Your task to perform on an android device: turn on bluetooth scan Image 0: 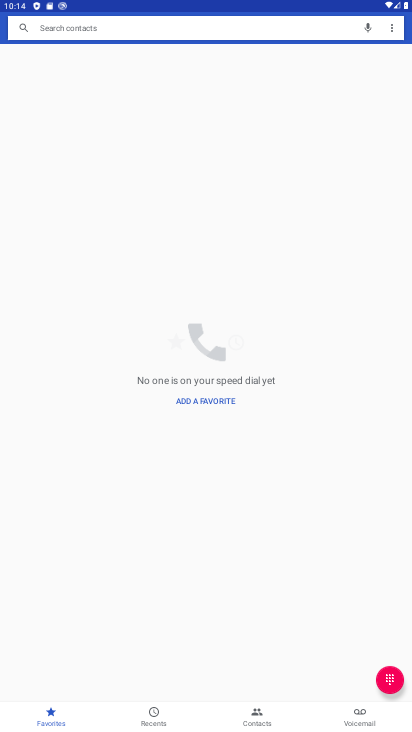
Step 0: click (410, 309)
Your task to perform on an android device: turn on bluetooth scan Image 1: 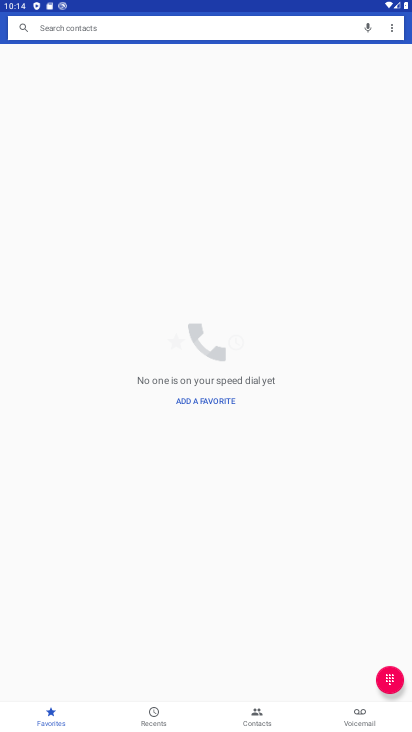
Step 1: press back button
Your task to perform on an android device: turn on bluetooth scan Image 2: 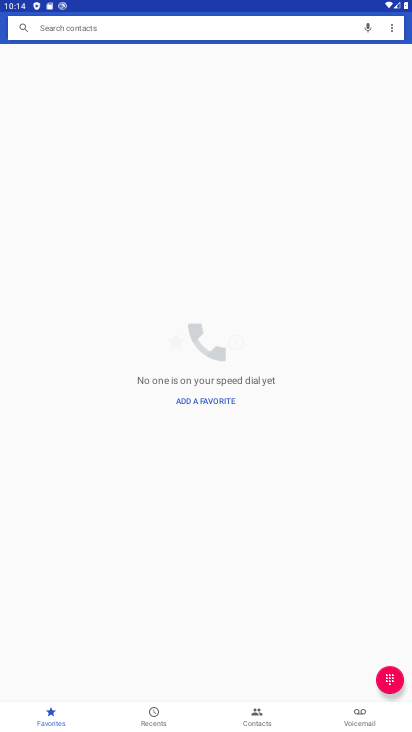
Step 2: press back button
Your task to perform on an android device: turn on bluetooth scan Image 3: 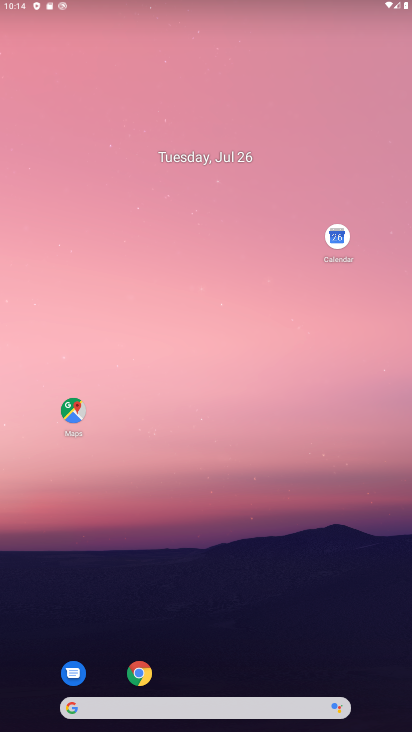
Step 3: press back button
Your task to perform on an android device: turn on bluetooth scan Image 4: 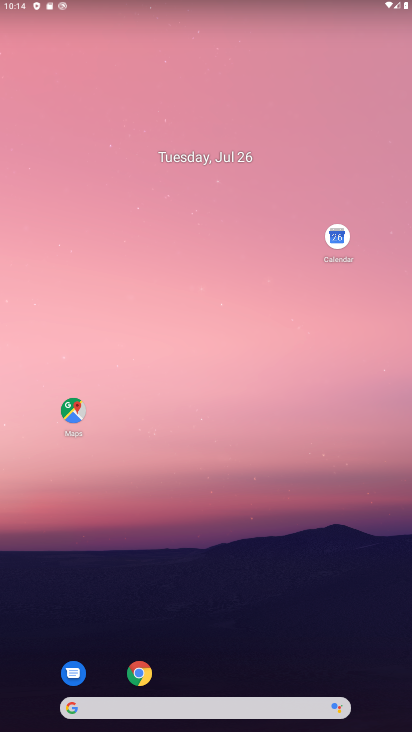
Step 4: drag from (172, 546) to (114, 115)
Your task to perform on an android device: turn on bluetooth scan Image 5: 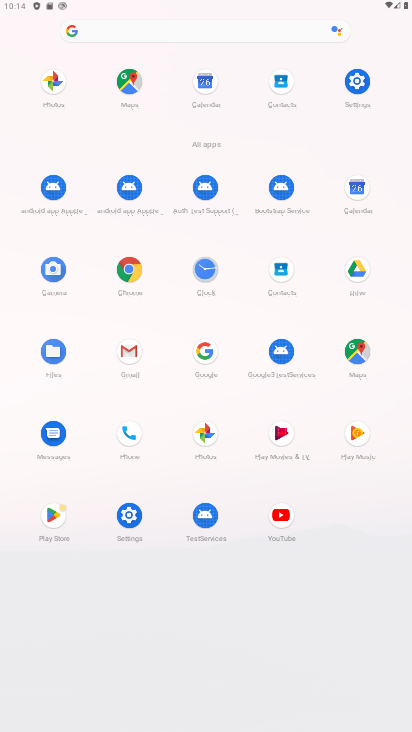
Step 5: drag from (216, 312) to (189, 119)
Your task to perform on an android device: turn on bluetooth scan Image 6: 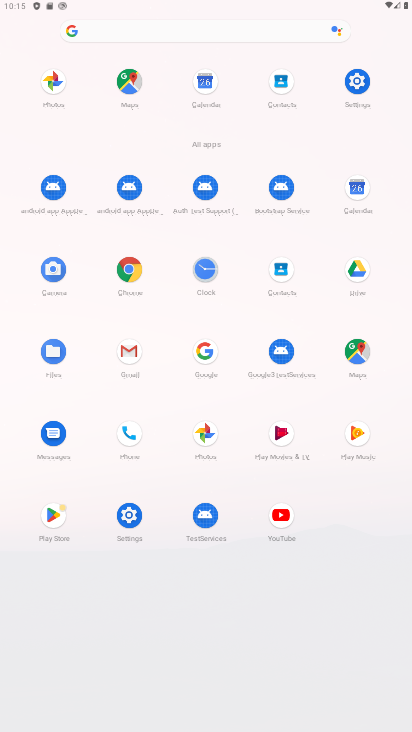
Step 6: click (131, 515)
Your task to perform on an android device: turn on bluetooth scan Image 7: 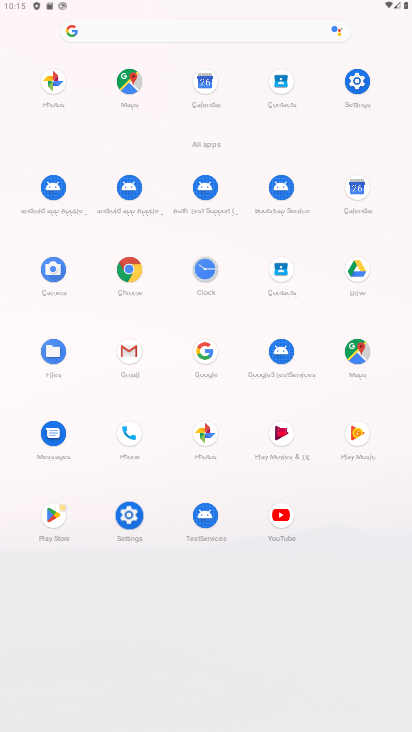
Step 7: click (130, 515)
Your task to perform on an android device: turn on bluetooth scan Image 8: 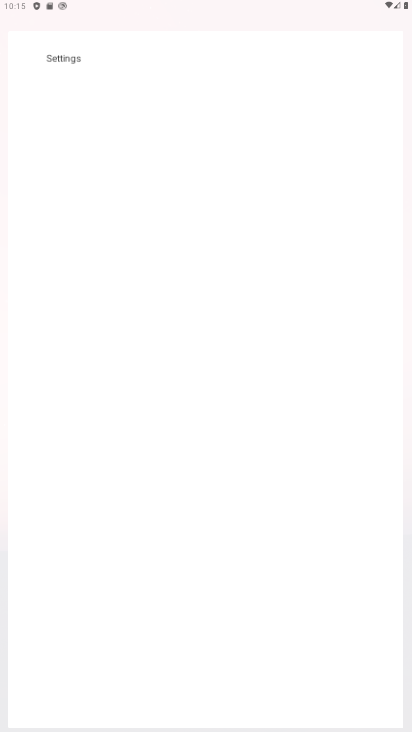
Step 8: click (133, 510)
Your task to perform on an android device: turn on bluetooth scan Image 9: 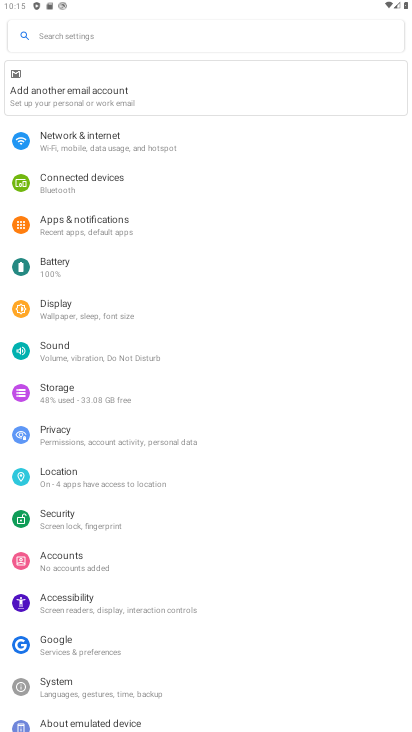
Step 9: click (135, 508)
Your task to perform on an android device: turn on bluetooth scan Image 10: 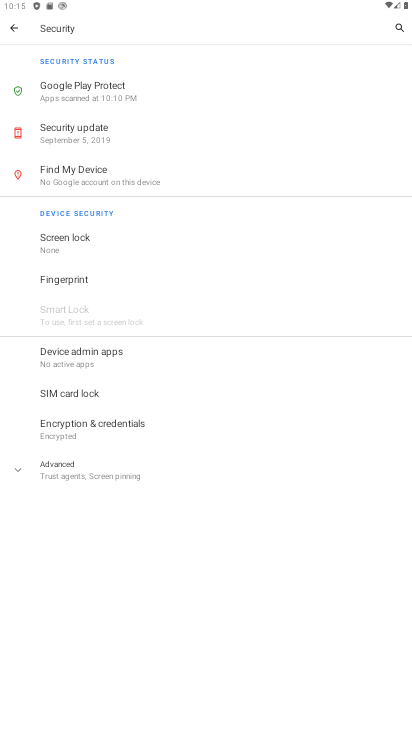
Step 10: click (11, 30)
Your task to perform on an android device: turn on bluetooth scan Image 11: 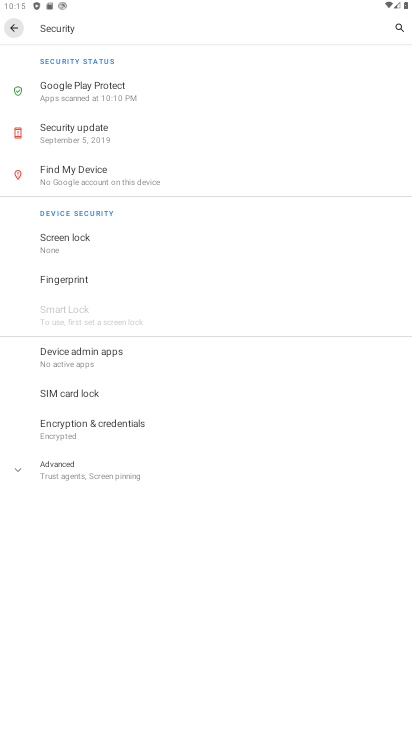
Step 11: click (11, 30)
Your task to perform on an android device: turn on bluetooth scan Image 12: 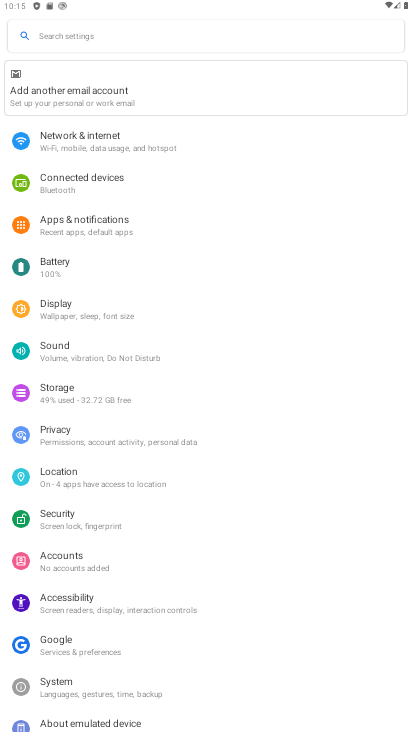
Step 12: click (82, 479)
Your task to perform on an android device: turn on bluetooth scan Image 13: 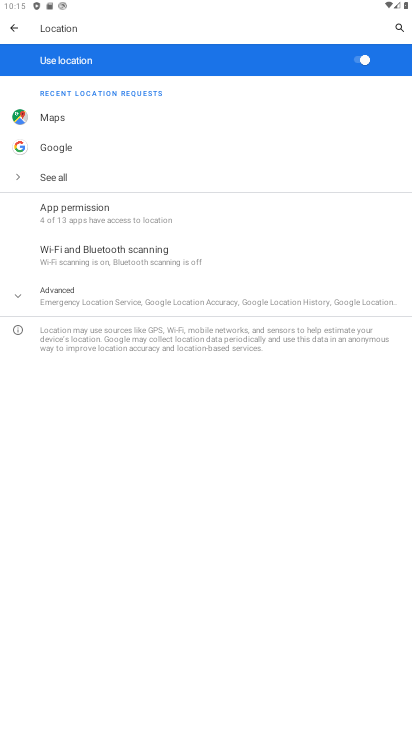
Step 13: click (45, 296)
Your task to perform on an android device: turn on bluetooth scan Image 14: 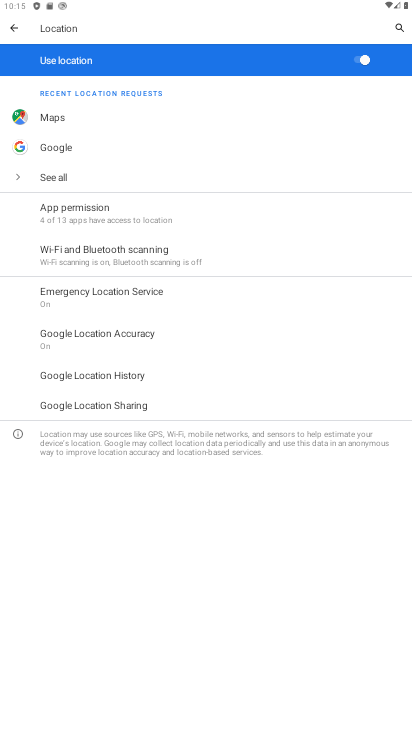
Step 14: click (50, 294)
Your task to perform on an android device: turn on bluetooth scan Image 15: 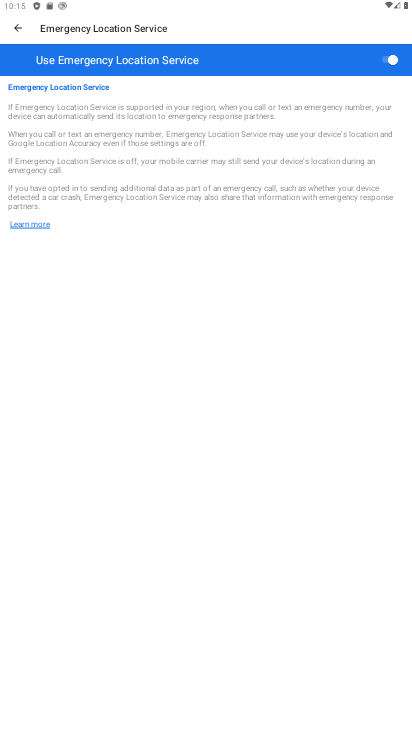
Step 15: click (22, 25)
Your task to perform on an android device: turn on bluetooth scan Image 16: 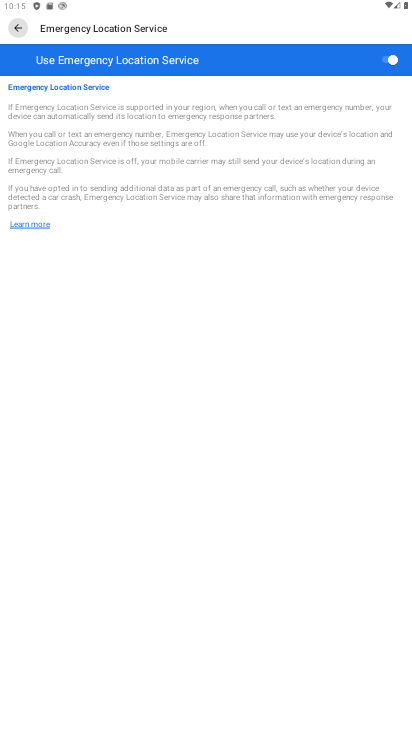
Step 16: click (14, 28)
Your task to perform on an android device: turn on bluetooth scan Image 17: 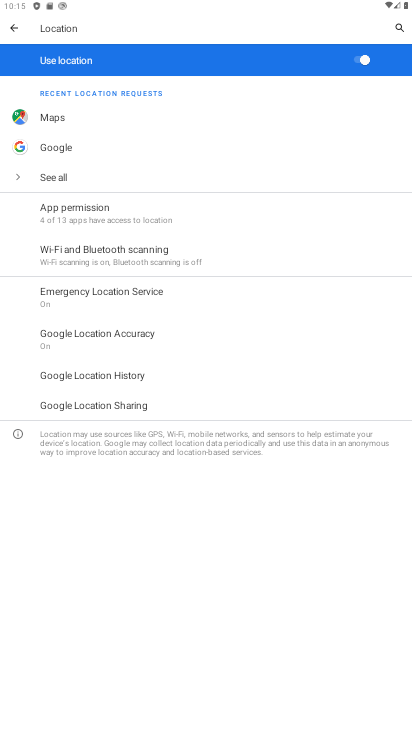
Step 17: click (98, 259)
Your task to perform on an android device: turn on bluetooth scan Image 18: 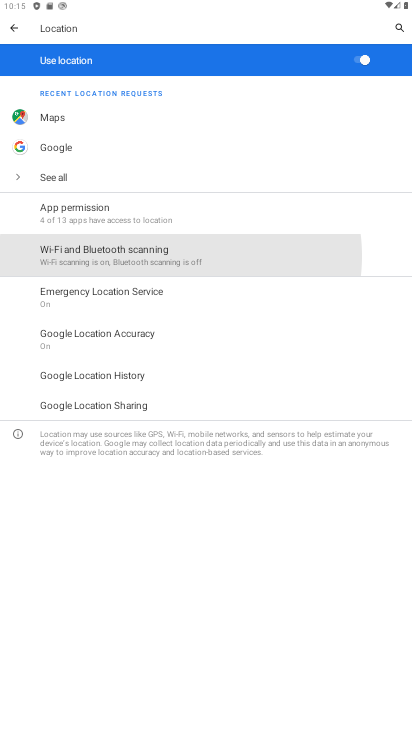
Step 18: click (98, 259)
Your task to perform on an android device: turn on bluetooth scan Image 19: 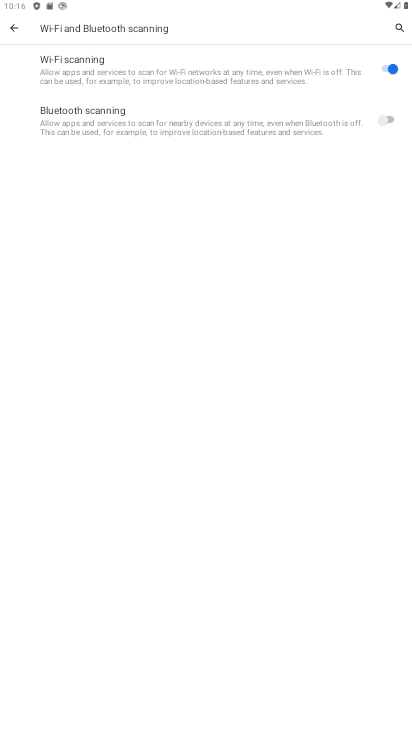
Step 19: click (101, 261)
Your task to perform on an android device: turn on bluetooth scan Image 20: 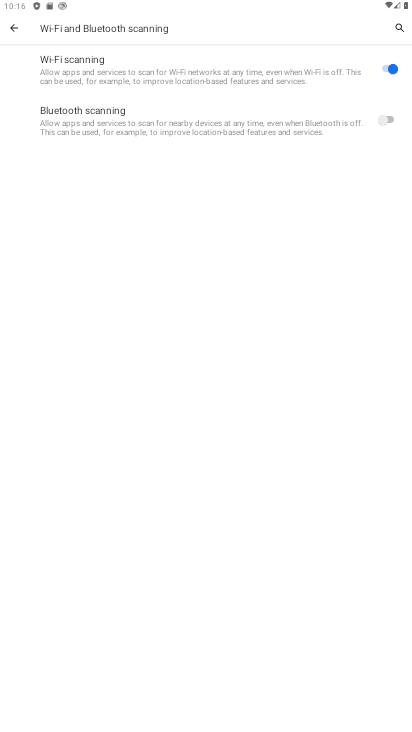
Step 20: click (384, 114)
Your task to perform on an android device: turn on bluetooth scan Image 21: 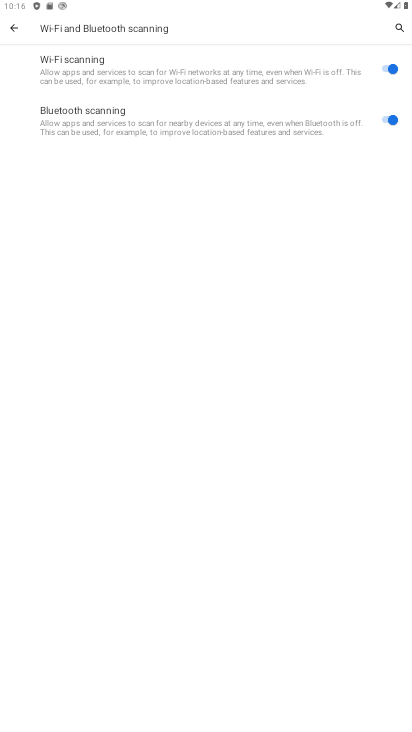
Step 21: click (397, 70)
Your task to perform on an android device: turn on bluetooth scan Image 22: 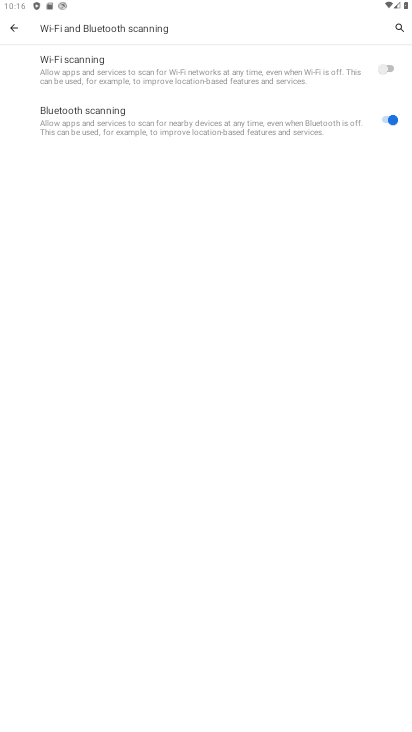
Step 22: task complete